Your task to perform on an android device: check out phone information Image 0: 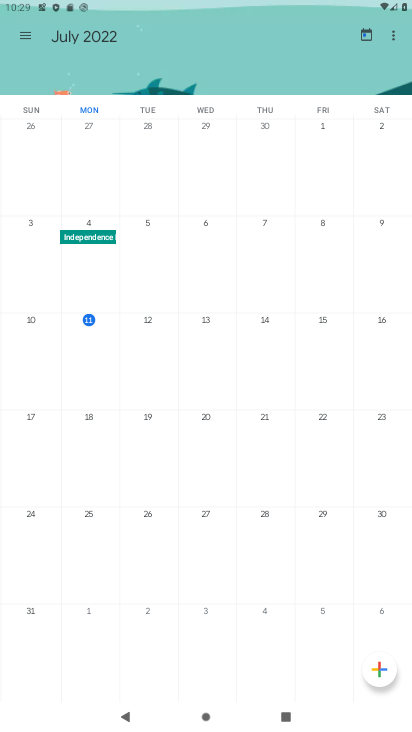
Step 0: press home button
Your task to perform on an android device: check out phone information Image 1: 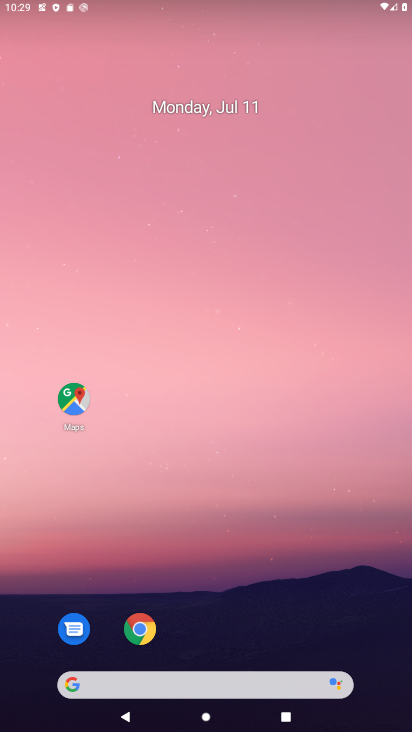
Step 1: drag from (215, 645) to (255, 65)
Your task to perform on an android device: check out phone information Image 2: 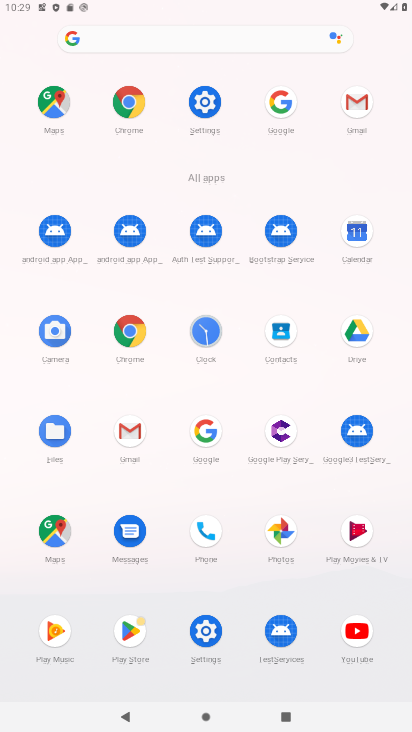
Step 2: click (218, 117)
Your task to perform on an android device: check out phone information Image 3: 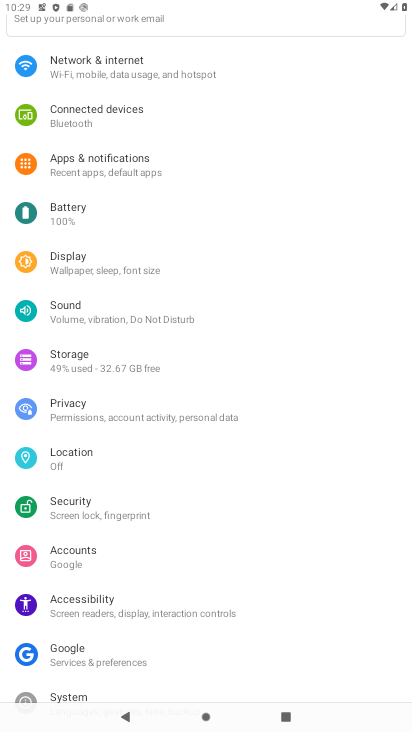
Step 3: drag from (200, 636) to (203, 155)
Your task to perform on an android device: check out phone information Image 4: 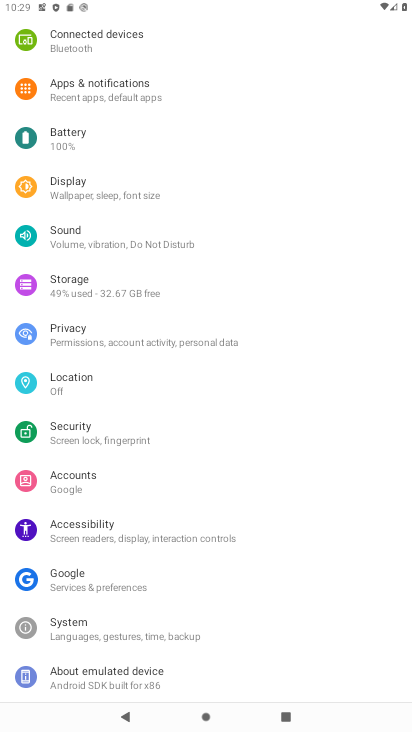
Step 4: click (135, 662)
Your task to perform on an android device: check out phone information Image 5: 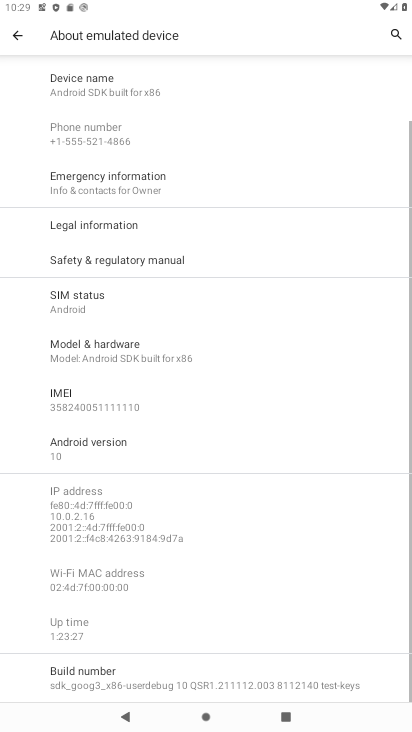
Step 5: task complete